Your task to perform on an android device: turn pop-ups off in chrome Image 0: 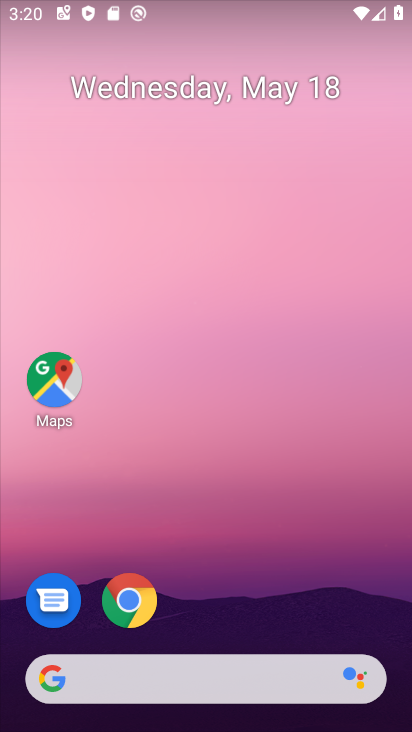
Step 0: click (129, 599)
Your task to perform on an android device: turn pop-ups off in chrome Image 1: 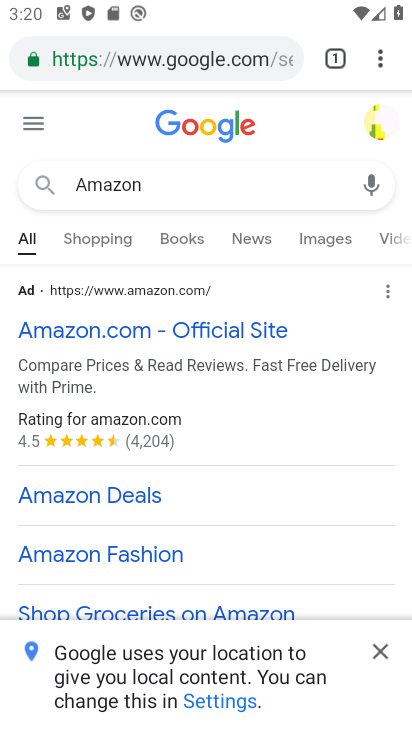
Step 1: click (381, 57)
Your task to perform on an android device: turn pop-ups off in chrome Image 2: 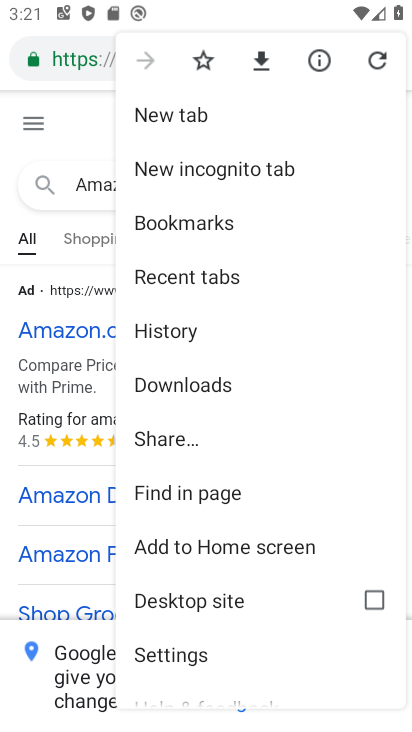
Step 2: click (174, 662)
Your task to perform on an android device: turn pop-ups off in chrome Image 3: 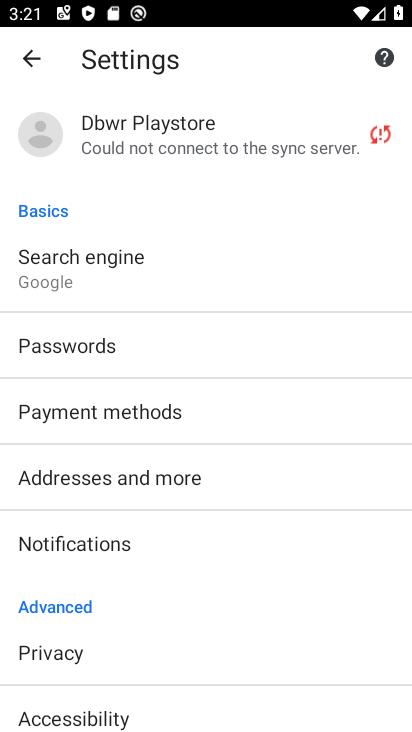
Step 3: drag from (123, 515) to (161, 261)
Your task to perform on an android device: turn pop-ups off in chrome Image 4: 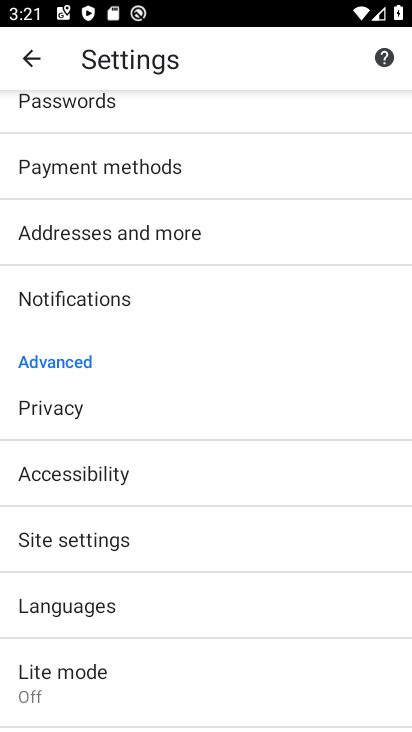
Step 4: click (67, 527)
Your task to perform on an android device: turn pop-ups off in chrome Image 5: 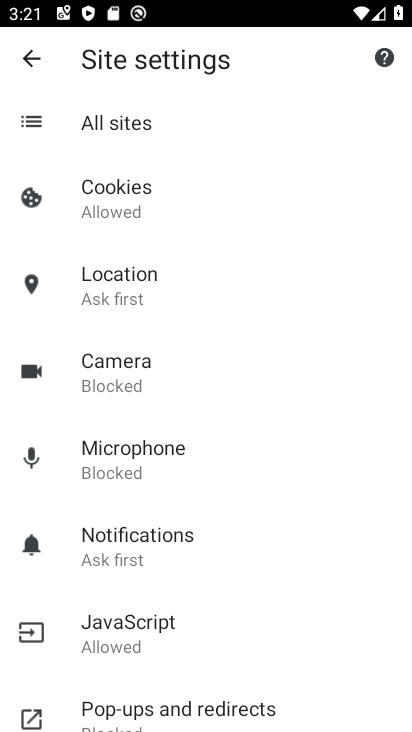
Step 5: click (174, 714)
Your task to perform on an android device: turn pop-ups off in chrome Image 6: 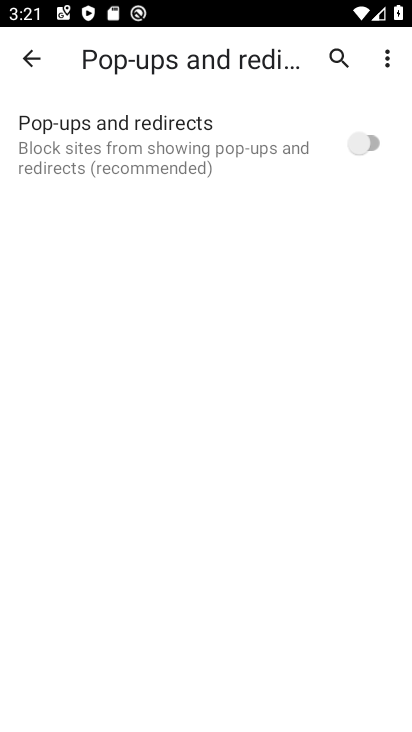
Step 6: task complete